Your task to perform on an android device: turn off location Image 0: 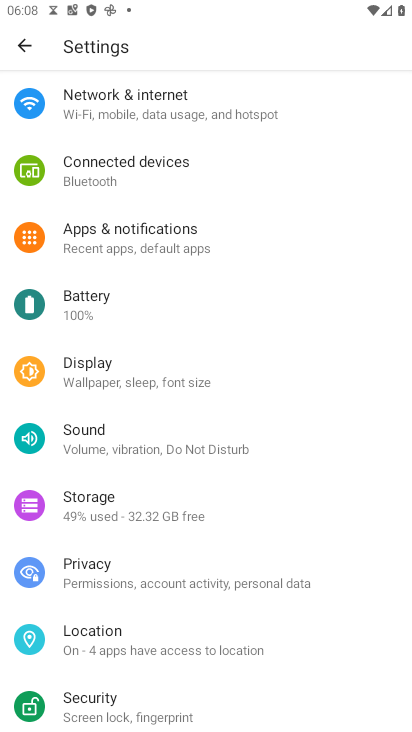
Step 0: click (163, 644)
Your task to perform on an android device: turn off location Image 1: 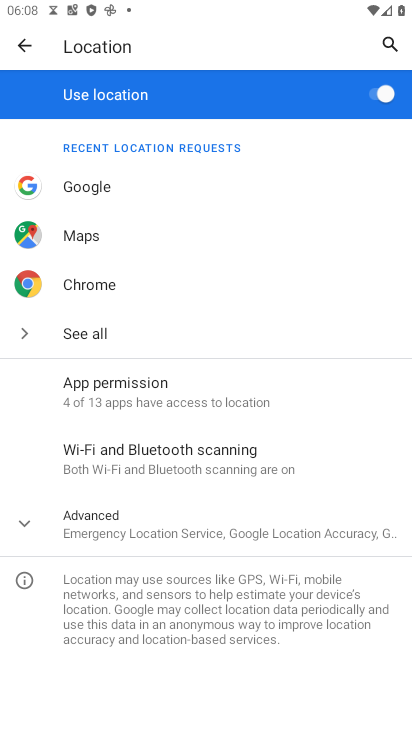
Step 1: click (376, 92)
Your task to perform on an android device: turn off location Image 2: 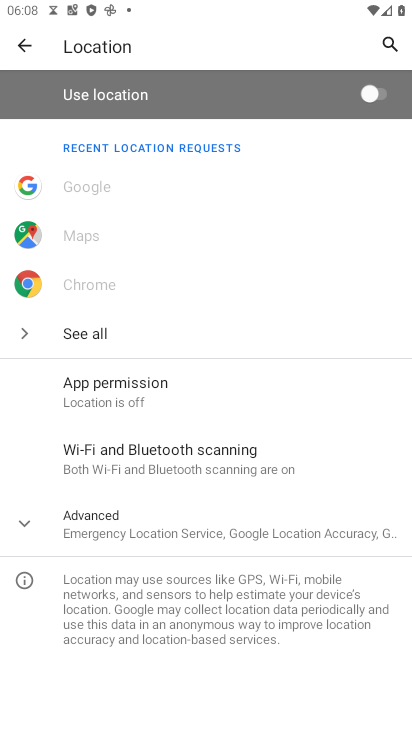
Step 2: task complete